Your task to perform on an android device: turn on sleep mode Image 0: 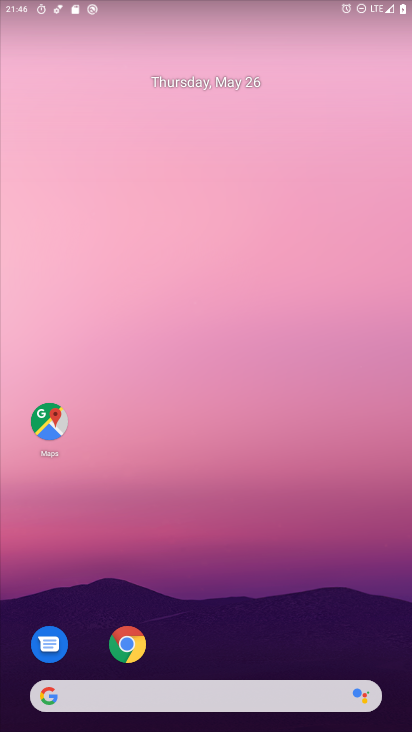
Step 0: drag from (225, 672) to (286, 243)
Your task to perform on an android device: turn on sleep mode Image 1: 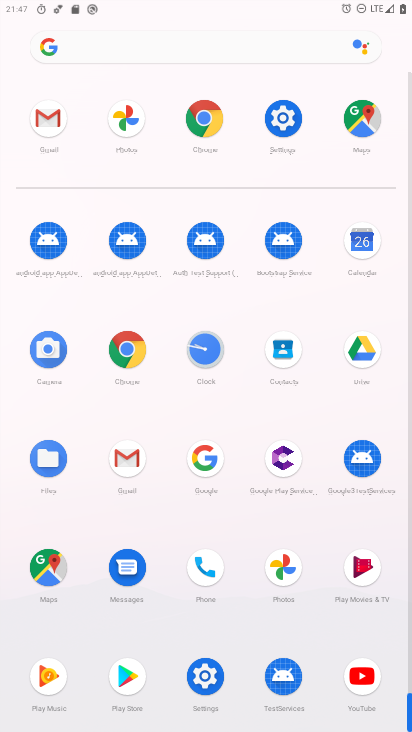
Step 1: click (203, 674)
Your task to perform on an android device: turn on sleep mode Image 2: 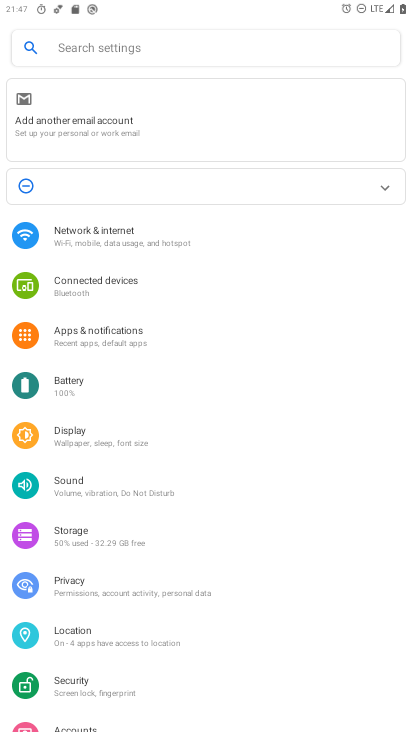
Step 2: drag from (221, 651) to (238, 217)
Your task to perform on an android device: turn on sleep mode Image 3: 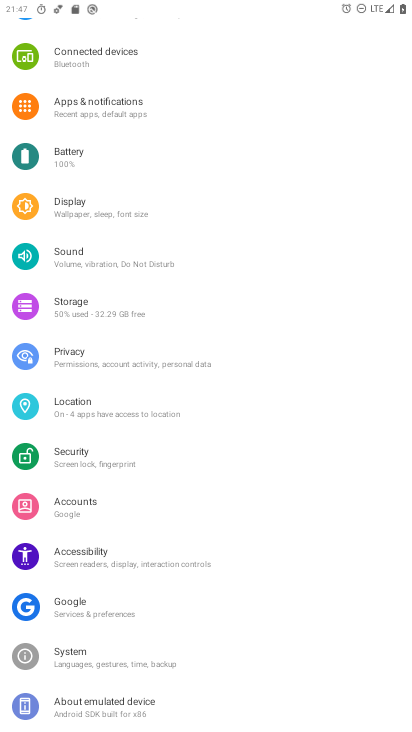
Step 3: drag from (200, 158) to (222, 719)
Your task to perform on an android device: turn on sleep mode Image 4: 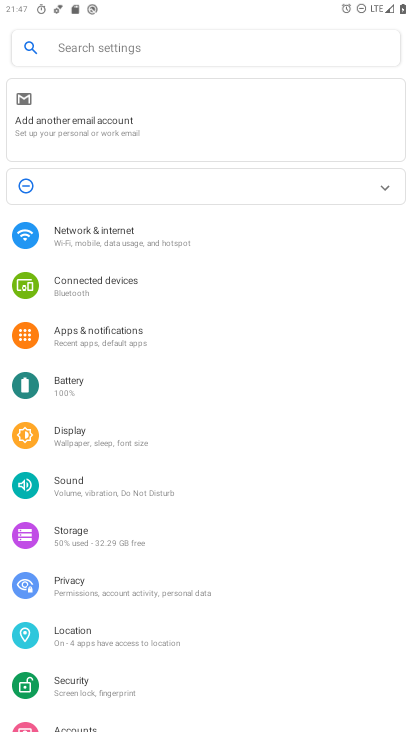
Step 4: click (176, 242)
Your task to perform on an android device: turn on sleep mode Image 5: 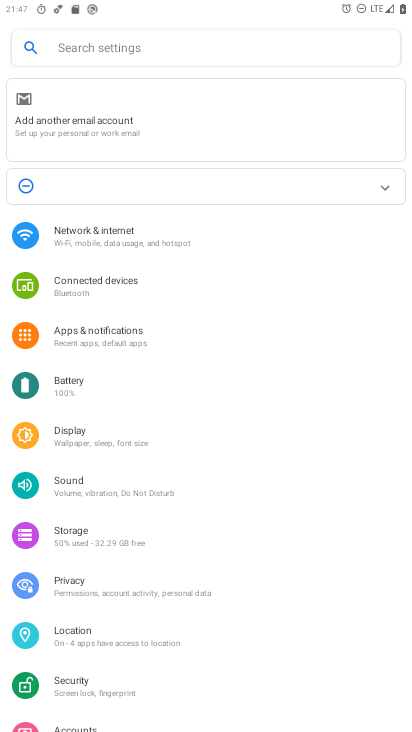
Step 5: click (176, 242)
Your task to perform on an android device: turn on sleep mode Image 6: 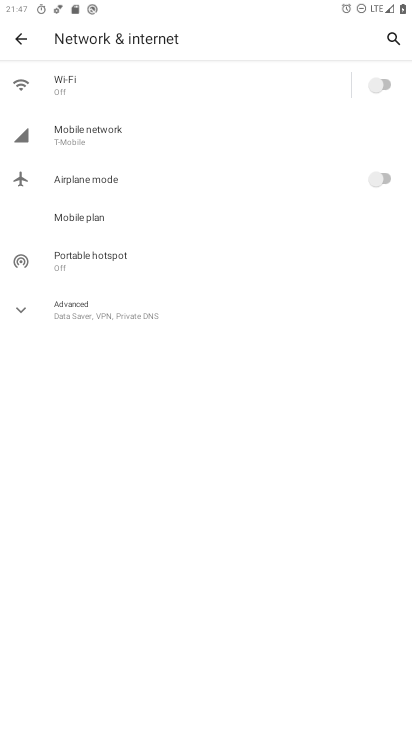
Step 6: click (26, 37)
Your task to perform on an android device: turn on sleep mode Image 7: 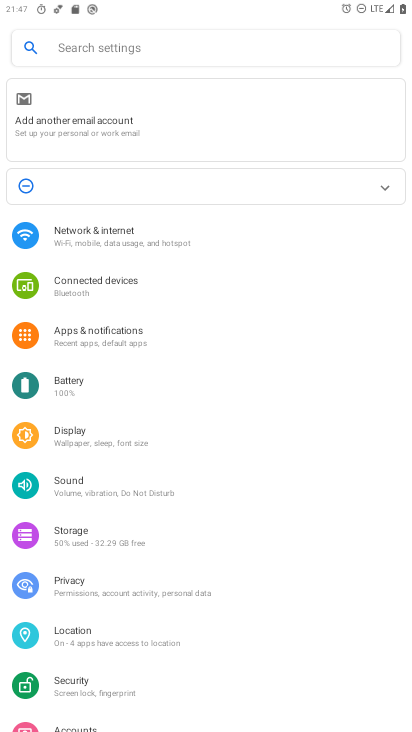
Step 7: click (125, 435)
Your task to perform on an android device: turn on sleep mode Image 8: 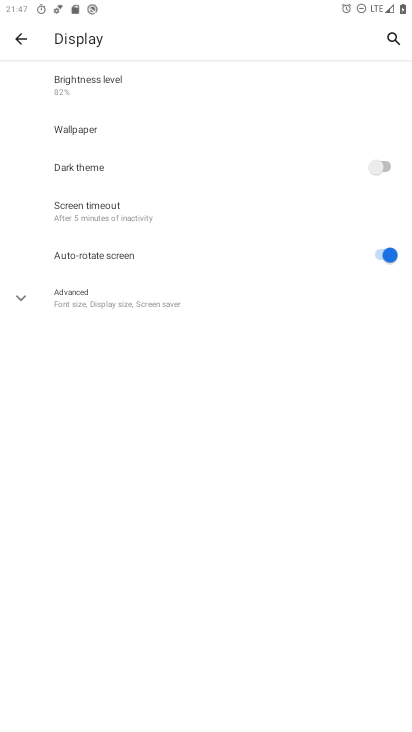
Step 8: click (155, 192)
Your task to perform on an android device: turn on sleep mode Image 9: 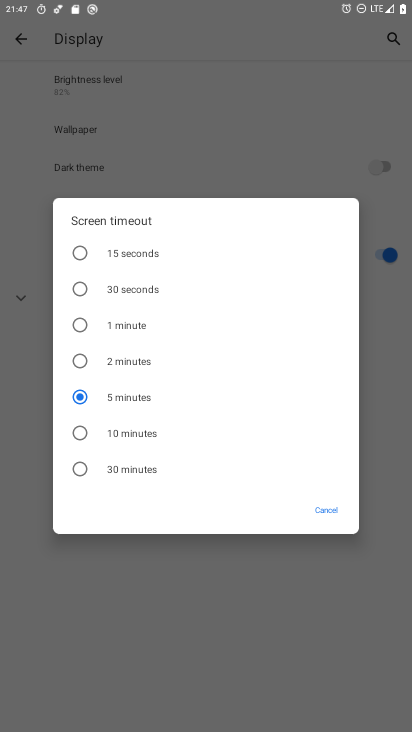
Step 9: task complete